Your task to perform on an android device: Go to privacy settings Image 0: 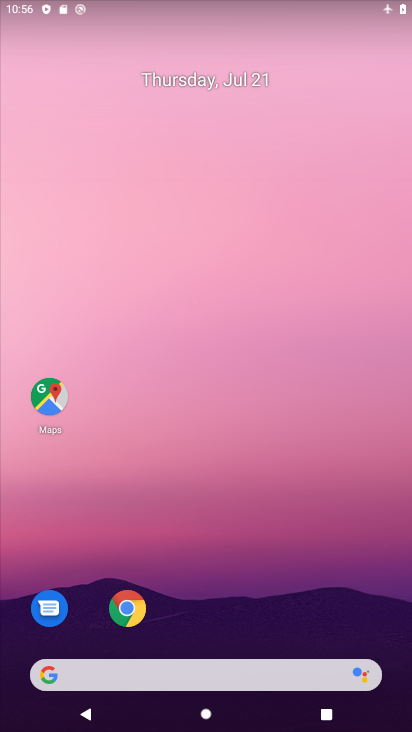
Step 0: drag from (334, 597) to (265, 251)
Your task to perform on an android device: Go to privacy settings Image 1: 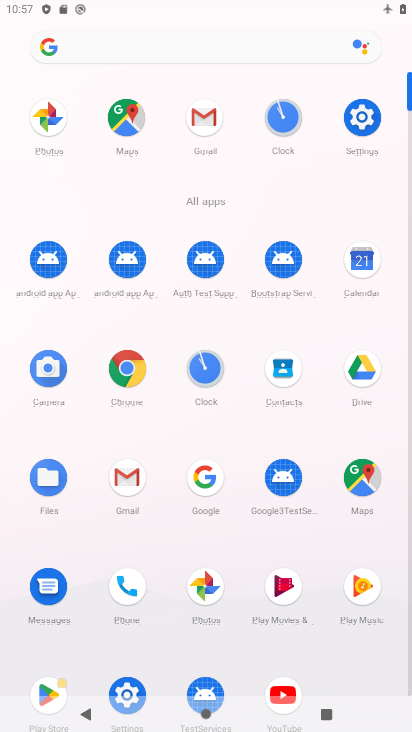
Step 1: click (125, 686)
Your task to perform on an android device: Go to privacy settings Image 2: 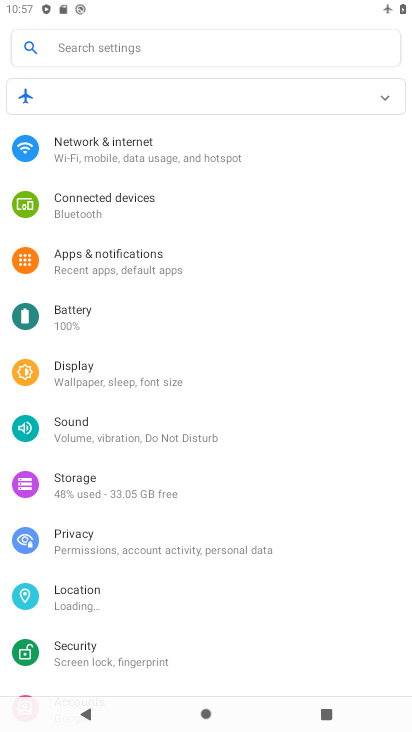
Step 2: click (108, 552)
Your task to perform on an android device: Go to privacy settings Image 3: 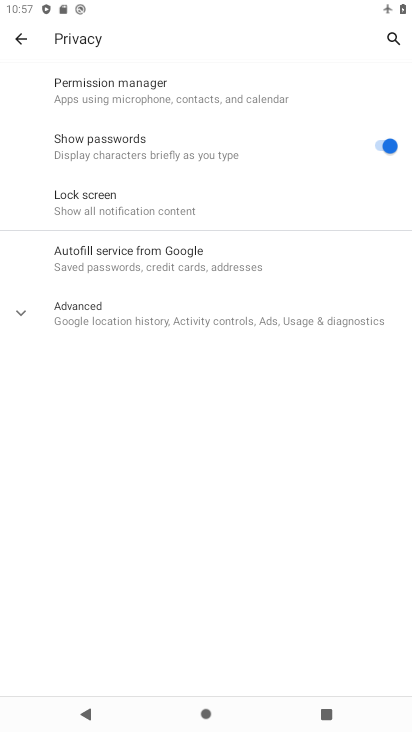
Step 3: task complete